Your task to perform on an android device: Do I have any events tomorrow? Image 0: 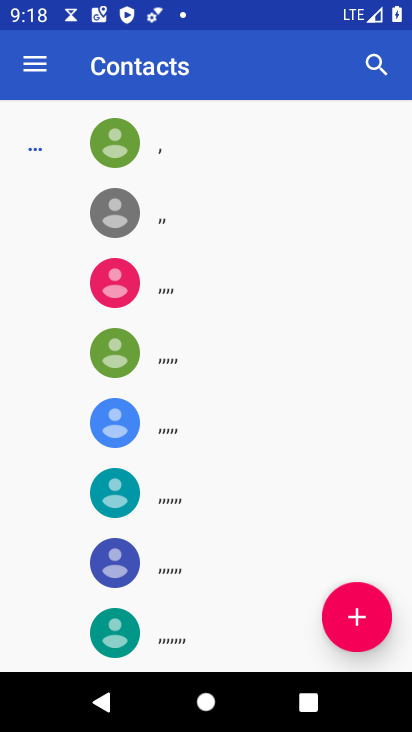
Step 0: press home button
Your task to perform on an android device: Do I have any events tomorrow? Image 1: 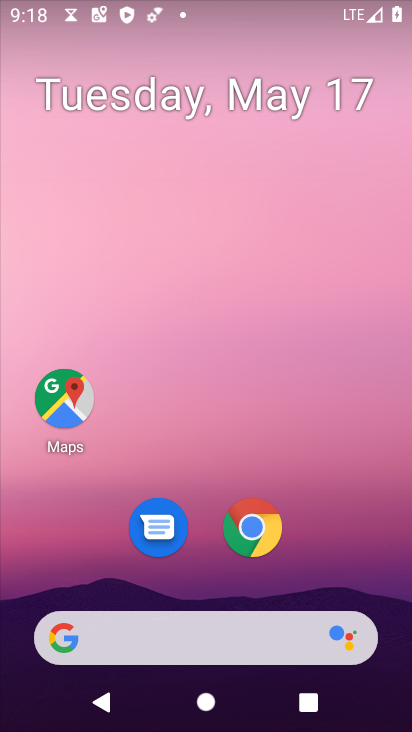
Step 1: drag from (227, 643) to (370, 89)
Your task to perform on an android device: Do I have any events tomorrow? Image 2: 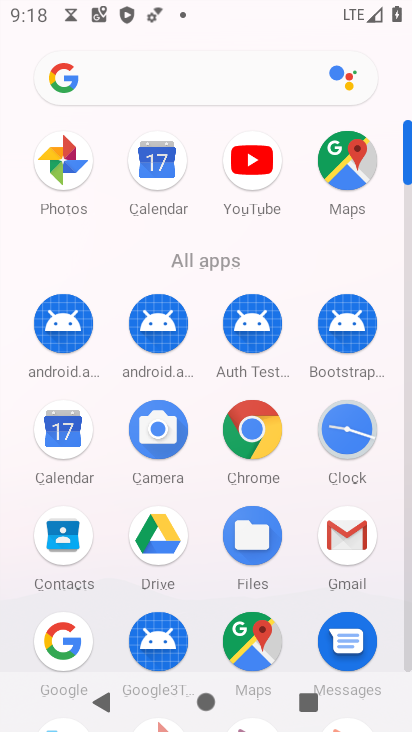
Step 2: click (66, 424)
Your task to perform on an android device: Do I have any events tomorrow? Image 3: 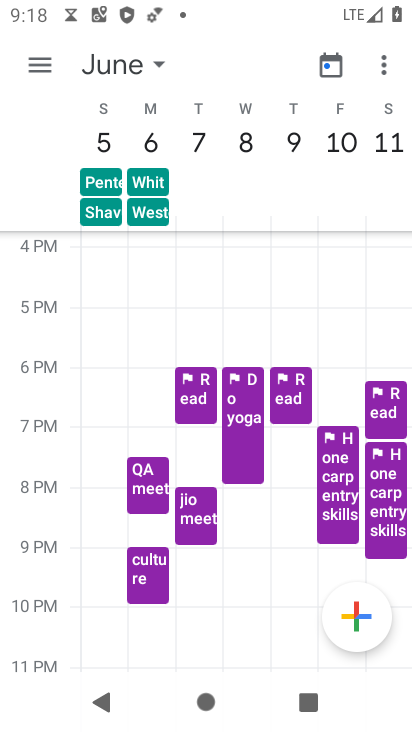
Step 3: click (108, 64)
Your task to perform on an android device: Do I have any events tomorrow? Image 4: 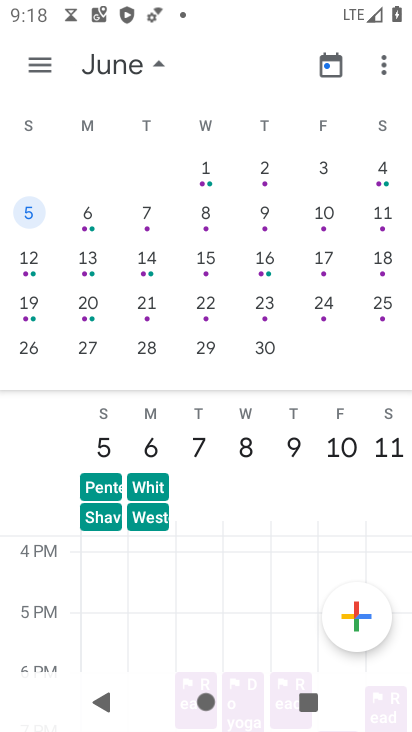
Step 4: drag from (54, 283) to (408, 300)
Your task to perform on an android device: Do I have any events tomorrow? Image 5: 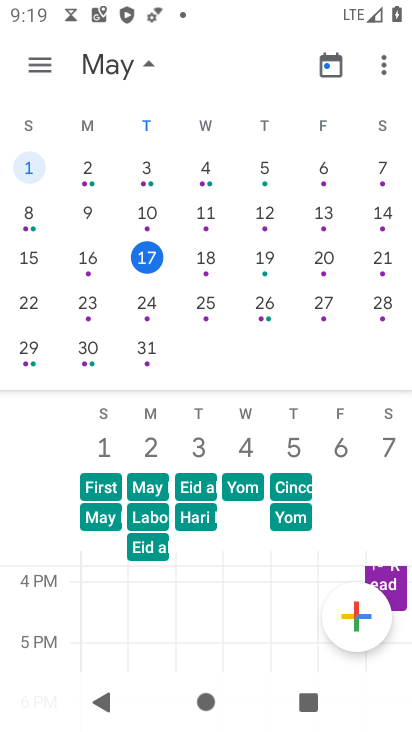
Step 5: click (152, 256)
Your task to perform on an android device: Do I have any events tomorrow? Image 6: 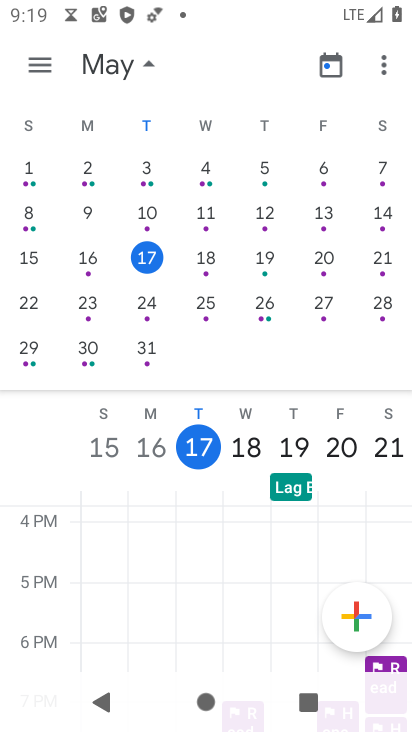
Step 6: click (204, 259)
Your task to perform on an android device: Do I have any events tomorrow? Image 7: 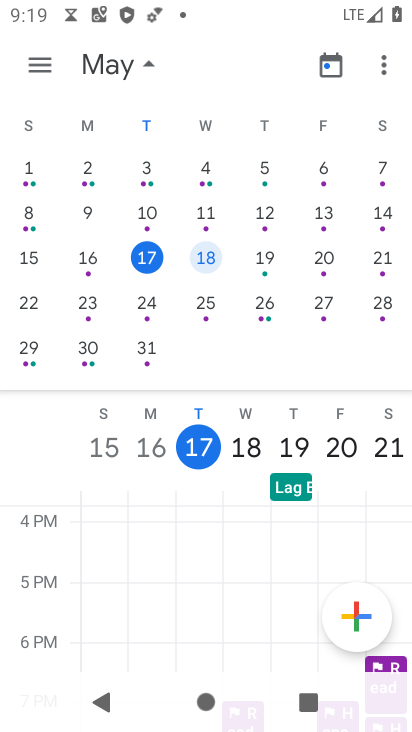
Step 7: click (35, 70)
Your task to perform on an android device: Do I have any events tomorrow? Image 8: 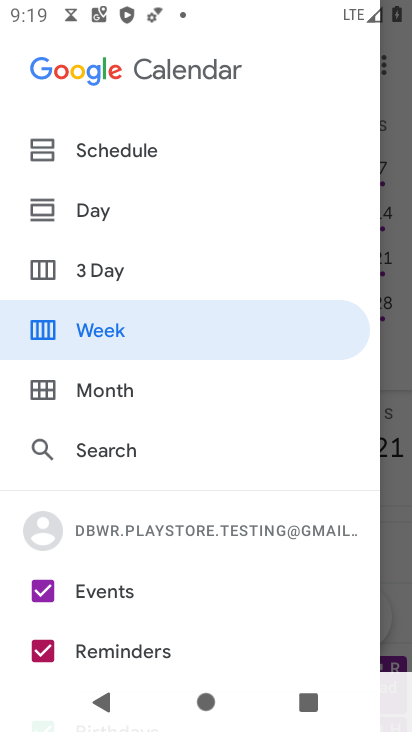
Step 8: click (140, 151)
Your task to perform on an android device: Do I have any events tomorrow? Image 9: 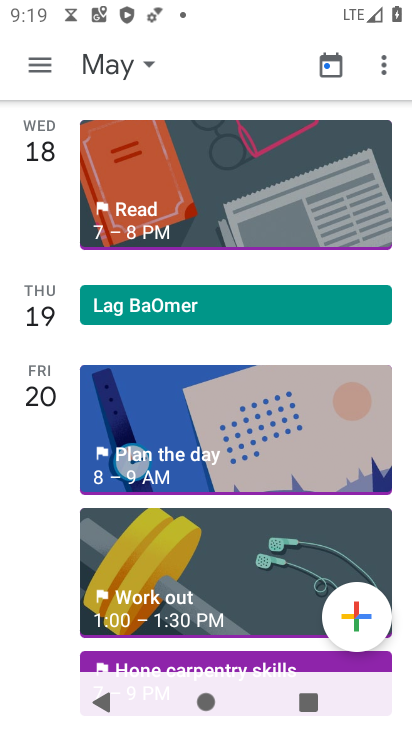
Step 9: task complete